Your task to perform on an android device: open sync settings in chrome Image 0: 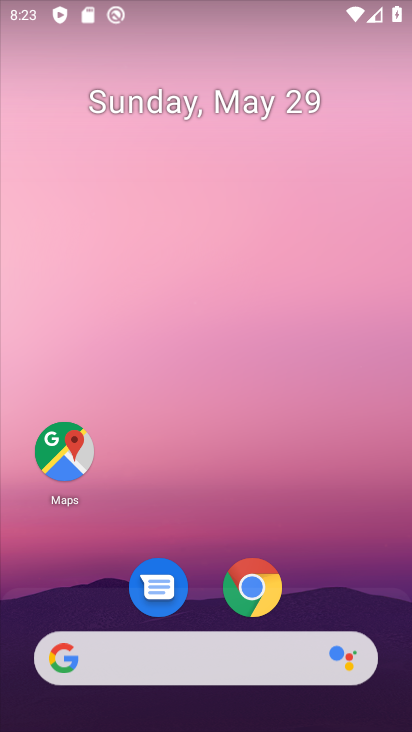
Step 0: click (255, 594)
Your task to perform on an android device: open sync settings in chrome Image 1: 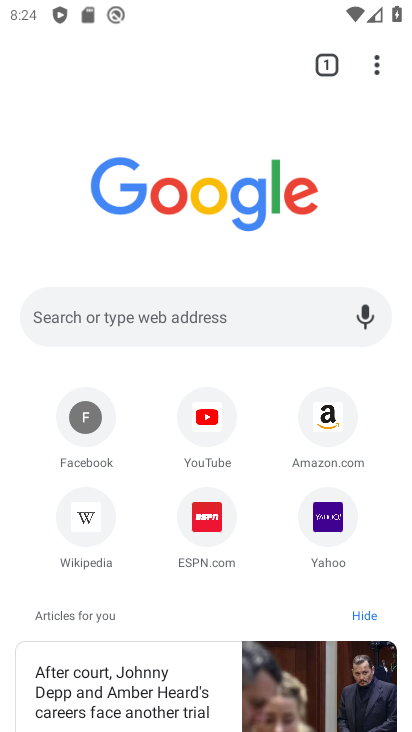
Step 1: click (391, 62)
Your task to perform on an android device: open sync settings in chrome Image 2: 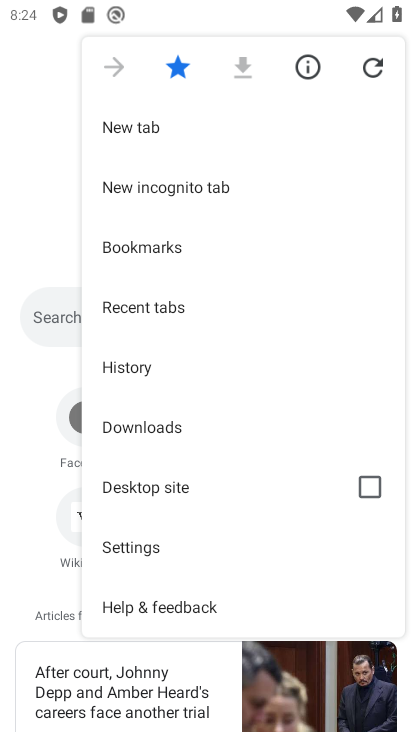
Step 2: click (188, 545)
Your task to perform on an android device: open sync settings in chrome Image 3: 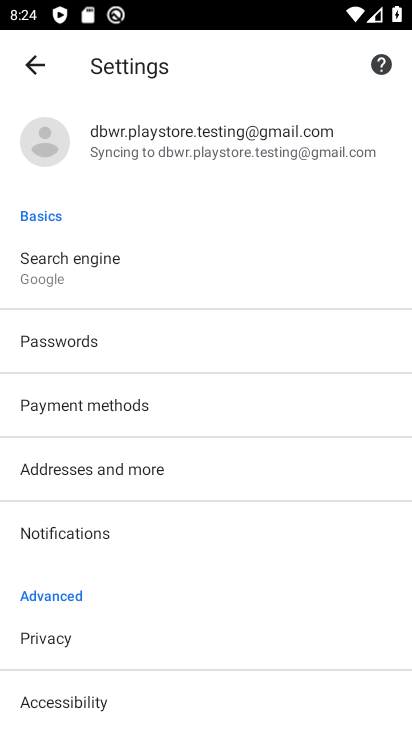
Step 3: click (220, 115)
Your task to perform on an android device: open sync settings in chrome Image 4: 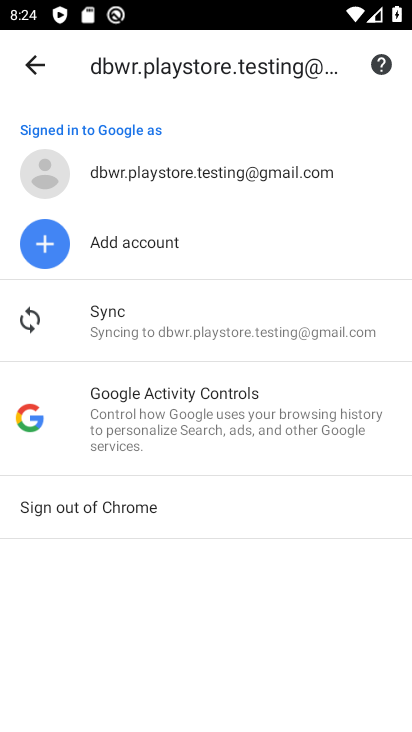
Step 4: click (94, 328)
Your task to perform on an android device: open sync settings in chrome Image 5: 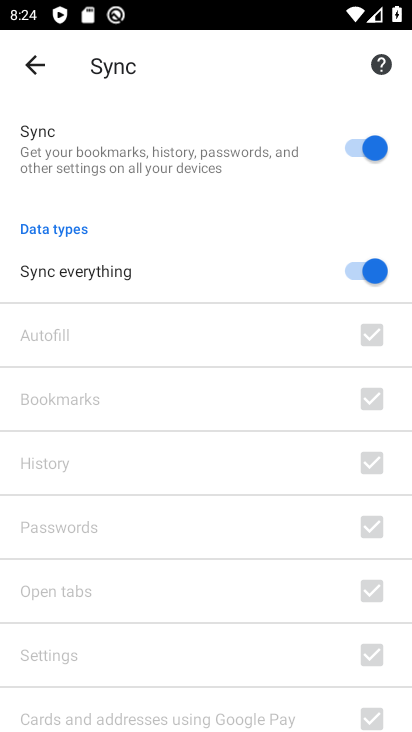
Step 5: task complete